Your task to perform on an android device: Go to display settings Image 0: 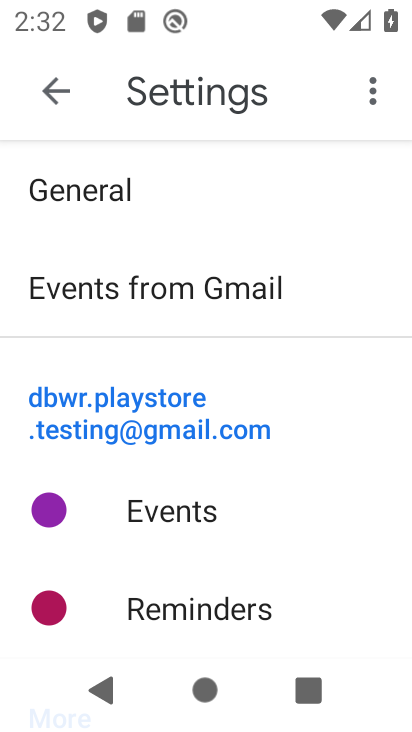
Step 0: press home button
Your task to perform on an android device: Go to display settings Image 1: 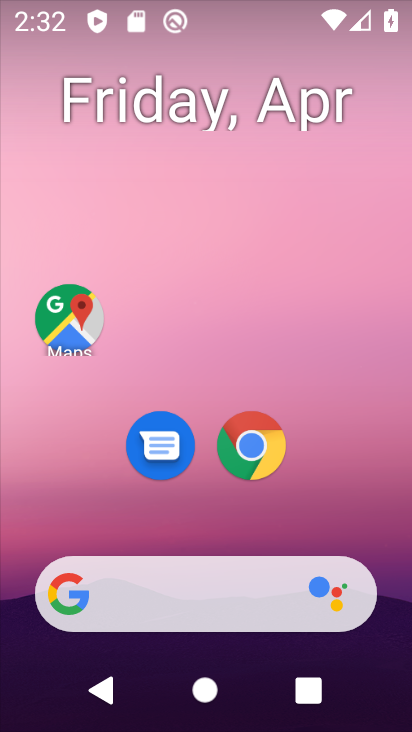
Step 1: drag from (301, 500) to (261, 39)
Your task to perform on an android device: Go to display settings Image 2: 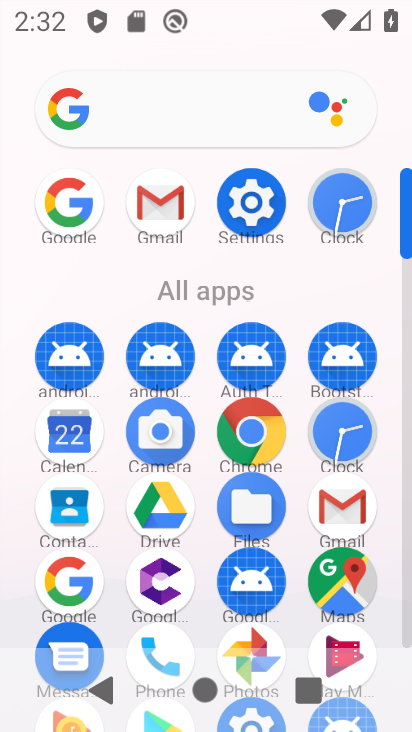
Step 2: click (254, 200)
Your task to perform on an android device: Go to display settings Image 3: 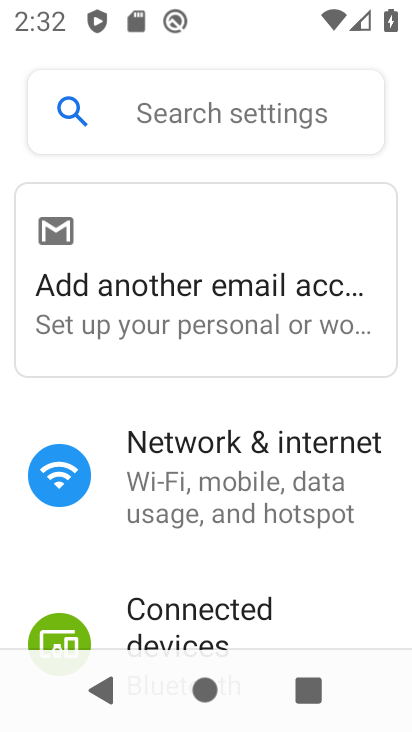
Step 3: drag from (267, 549) to (297, 400)
Your task to perform on an android device: Go to display settings Image 4: 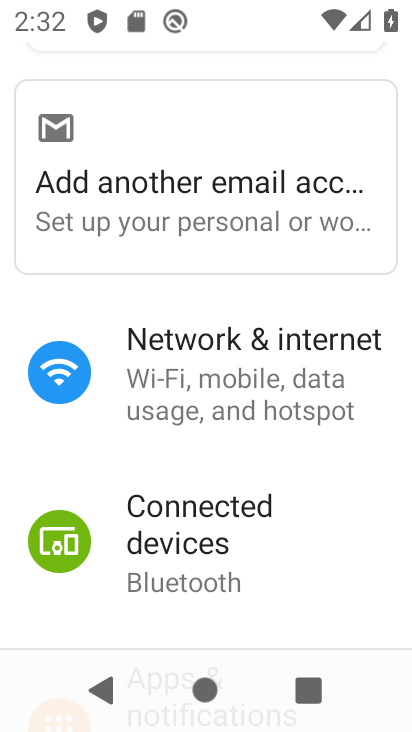
Step 4: drag from (266, 561) to (306, 430)
Your task to perform on an android device: Go to display settings Image 5: 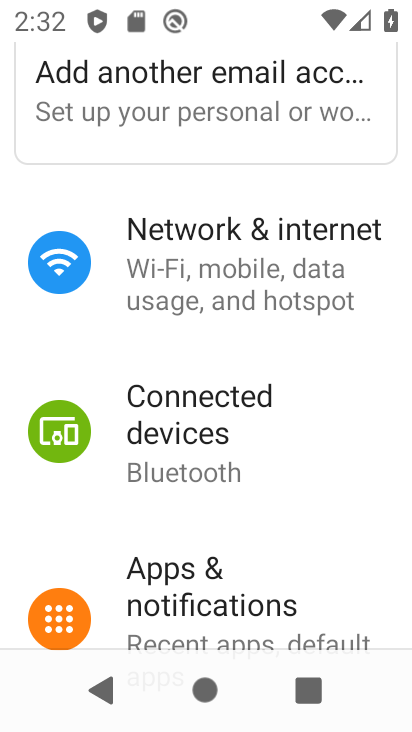
Step 5: drag from (271, 533) to (325, 357)
Your task to perform on an android device: Go to display settings Image 6: 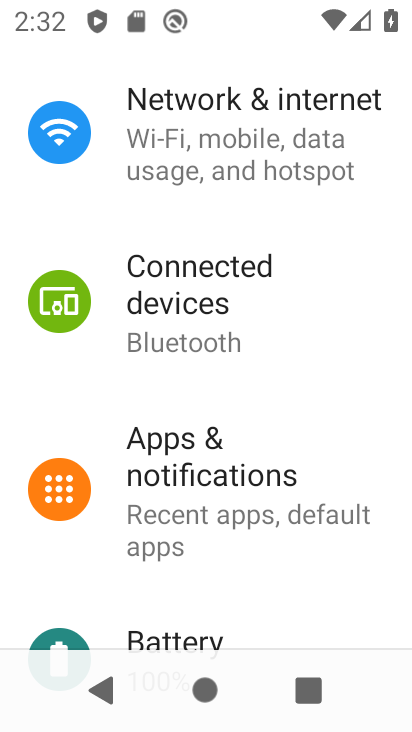
Step 6: drag from (266, 569) to (322, 432)
Your task to perform on an android device: Go to display settings Image 7: 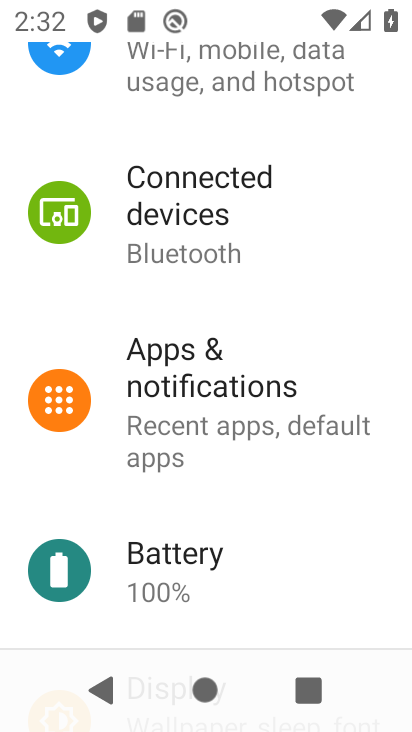
Step 7: drag from (268, 567) to (332, 414)
Your task to perform on an android device: Go to display settings Image 8: 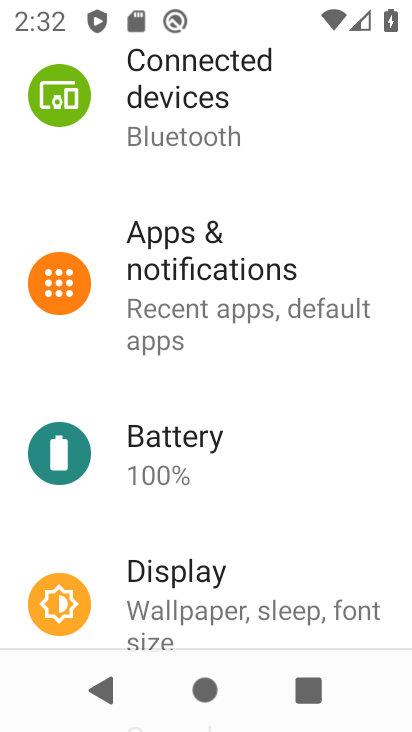
Step 8: drag from (249, 518) to (334, 344)
Your task to perform on an android device: Go to display settings Image 9: 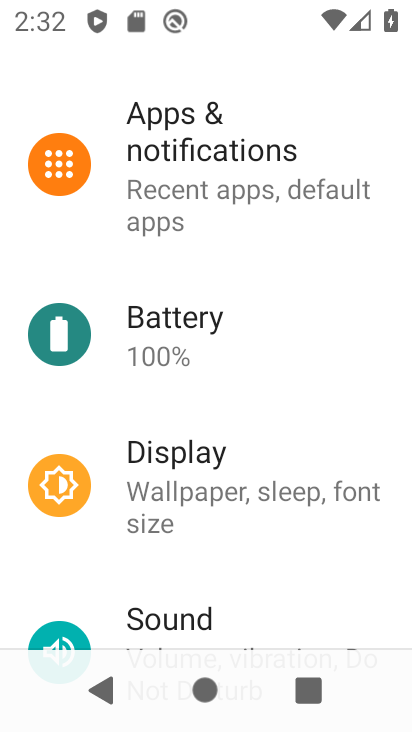
Step 9: click (203, 457)
Your task to perform on an android device: Go to display settings Image 10: 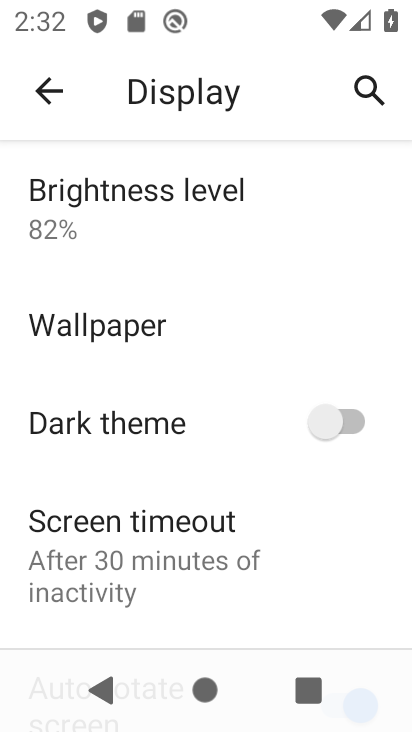
Step 10: task complete